Your task to perform on an android device: turn on wifi Image 0: 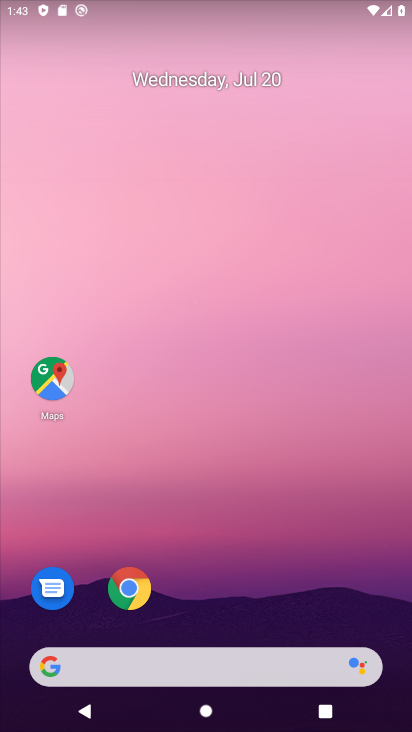
Step 0: drag from (343, 662) to (253, 14)
Your task to perform on an android device: turn on wifi Image 1: 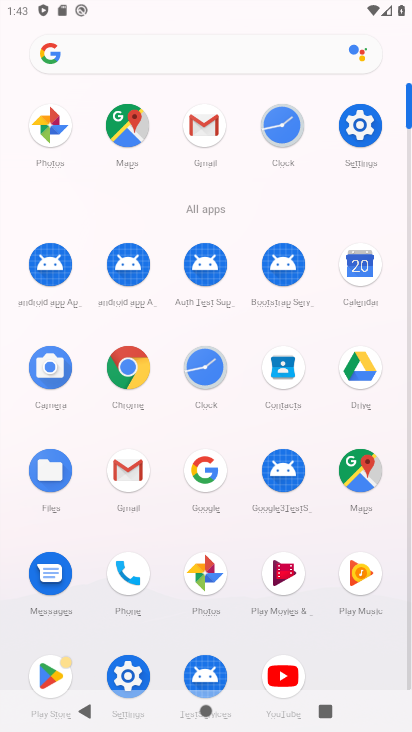
Step 1: click (353, 116)
Your task to perform on an android device: turn on wifi Image 2: 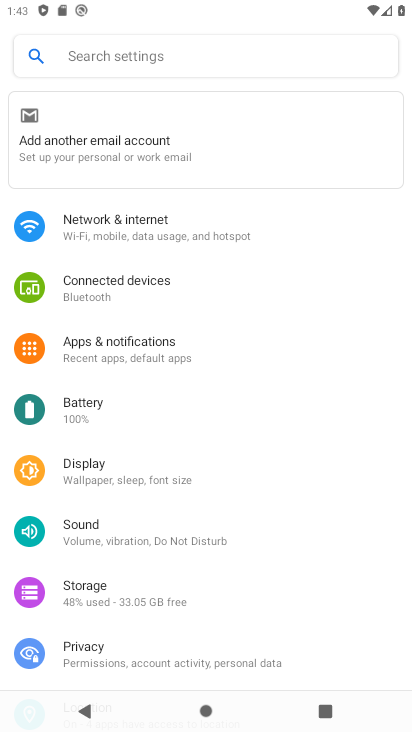
Step 2: click (154, 223)
Your task to perform on an android device: turn on wifi Image 3: 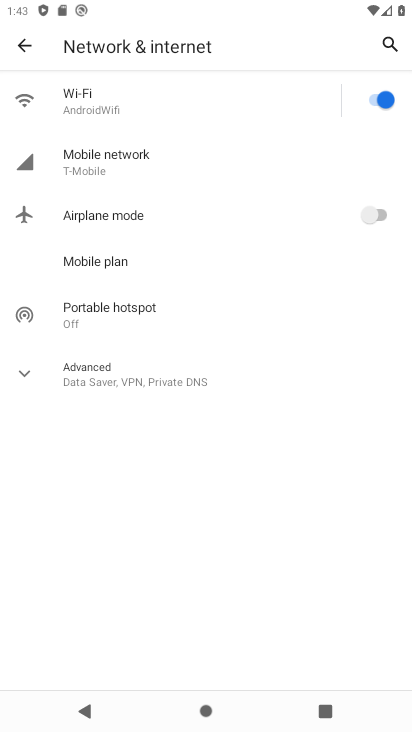
Step 3: task complete